Your task to perform on an android device: Show me popular games on the Play Store Image 0: 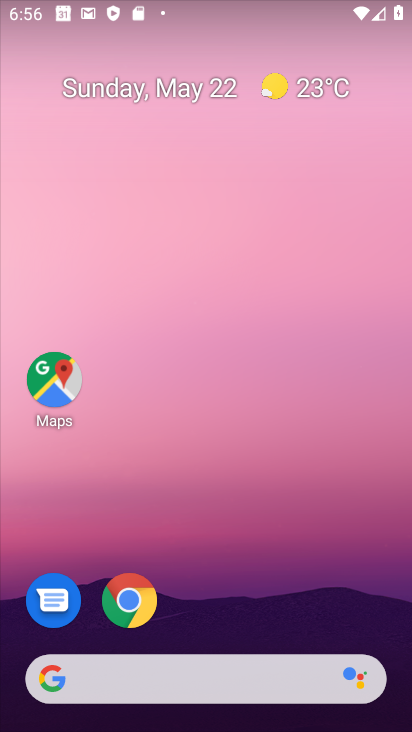
Step 0: drag from (308, 611) to (323, 370)
Your task to perform on an android device: Show me popular games on the Play Store Image 1: 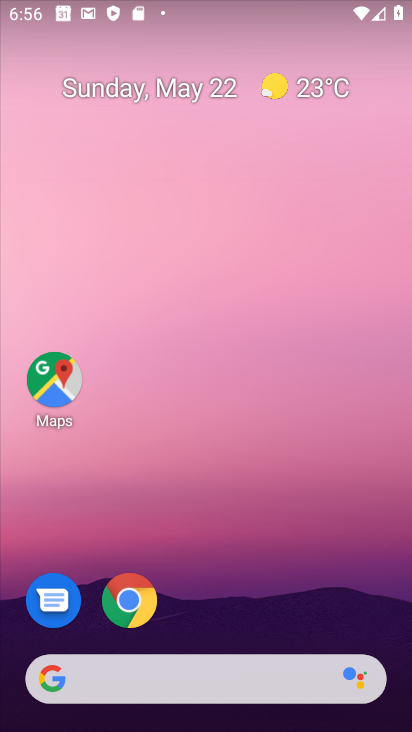
Step 1: drag from (314, 616) to (271, 7)
Your task to perform on an android device: Show me popular games on the Play Store Image 2: 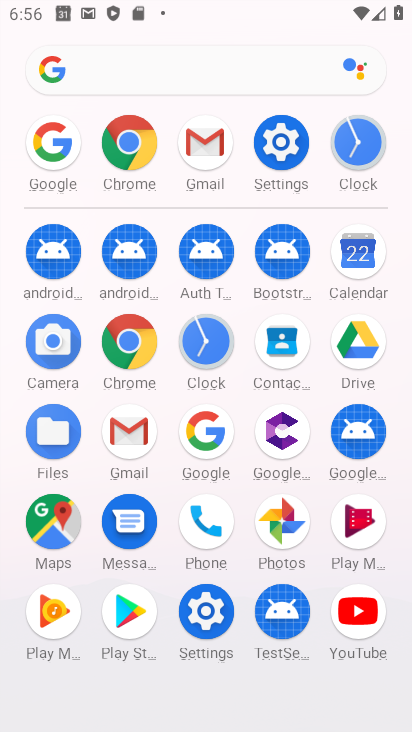
Step 2: click (126, 604)
Your task to perform on an android device: Show me popular games on the Play Store Image 3: 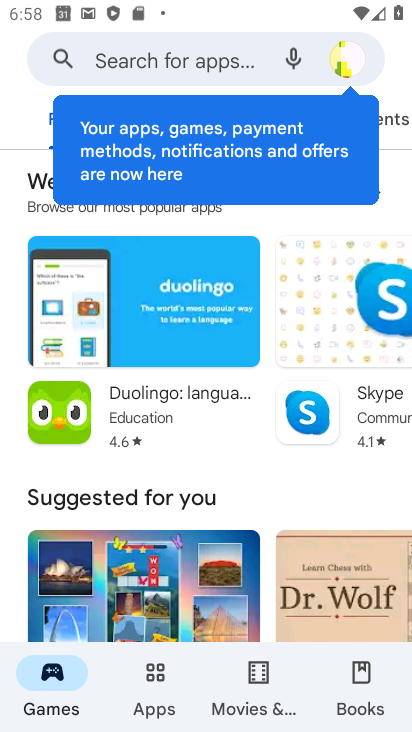
Step 3: task complete